Your task to perform on an android device: Open the Play Movies app and select the watchlist tab. Image 0: 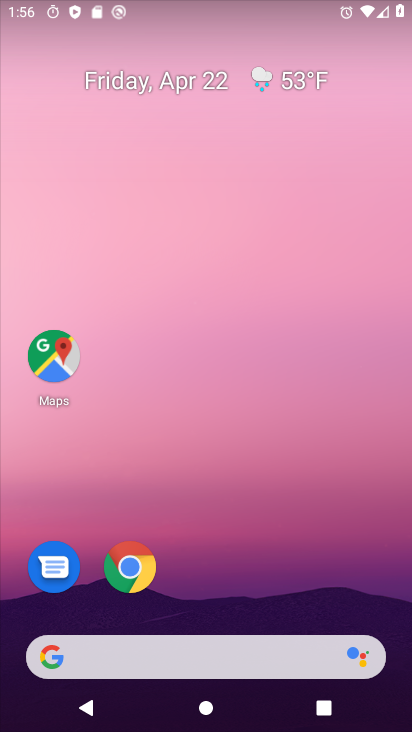
Step 0: drag from (276, 574) to (329, 67)
Your task to perform on an android device: Open the Play Movies app and select the watchlist tab. Image 1: 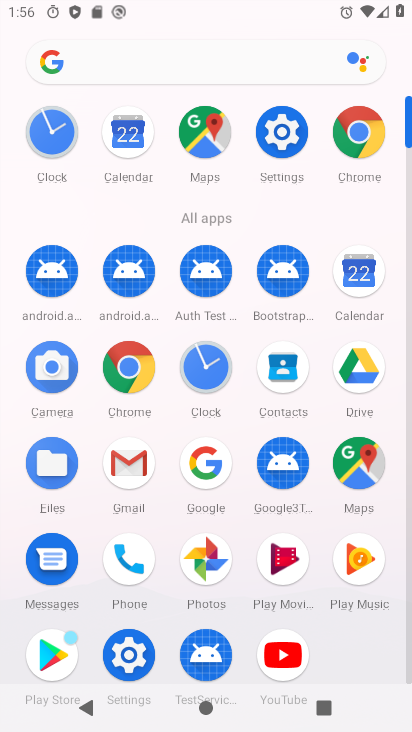
Step 1: click (283, 550)
Your task to perform on an android device: Open the Play Movies app and select the watchlist tab. Image 2: 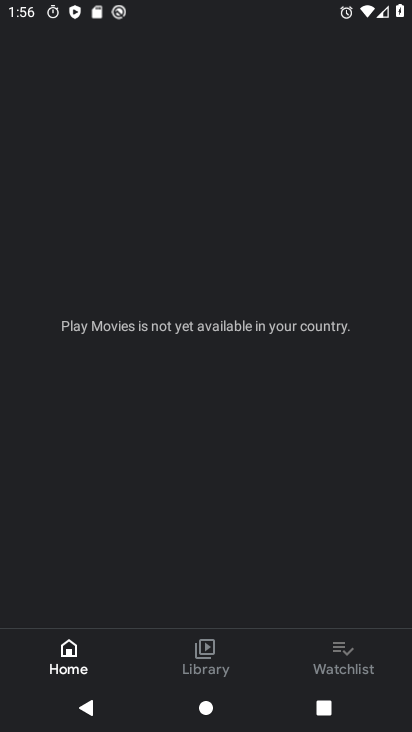
Step 2: click (346, 653)
Your task to perform on an android device: Open the Play Movies app and select the watchlist tab. Image 3: 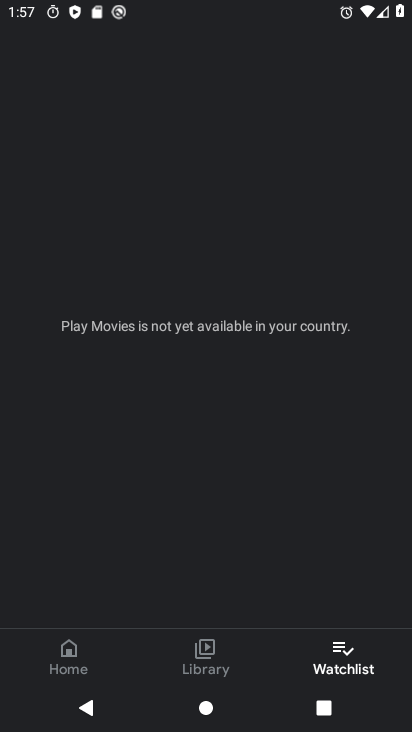
Step 3: task complete